Your task to perform on an android device: Is it going to rain today? Image 0: 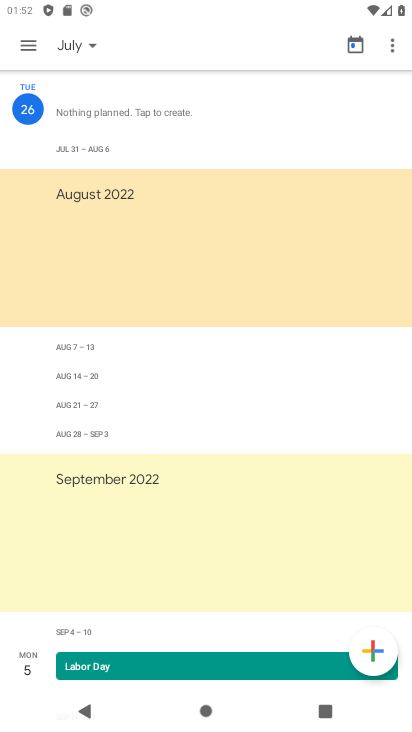
Step 0: press home button
Your task to perform on an android device: Is it going to rain today? Image 1: 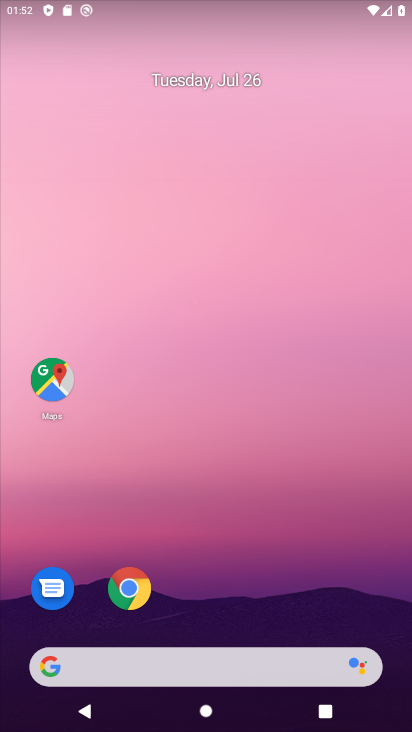
Step 1: click (127, 595)
Your task to perform on an android device: Is it going to rain today? Image 2: 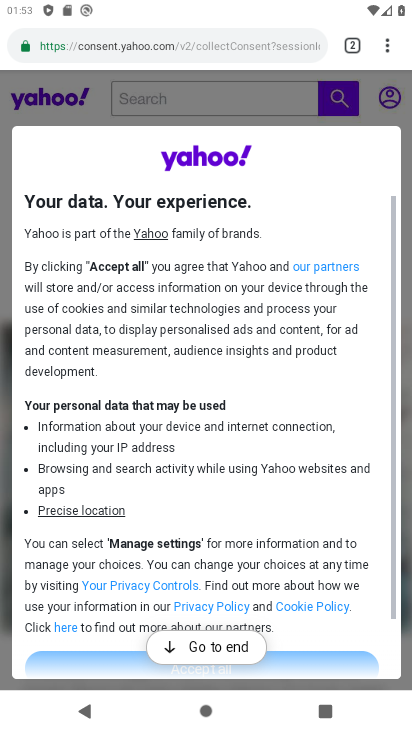
Step 2: click (149, 50)
Your task to perform on an android device: Is it going to rain today? Image 3: 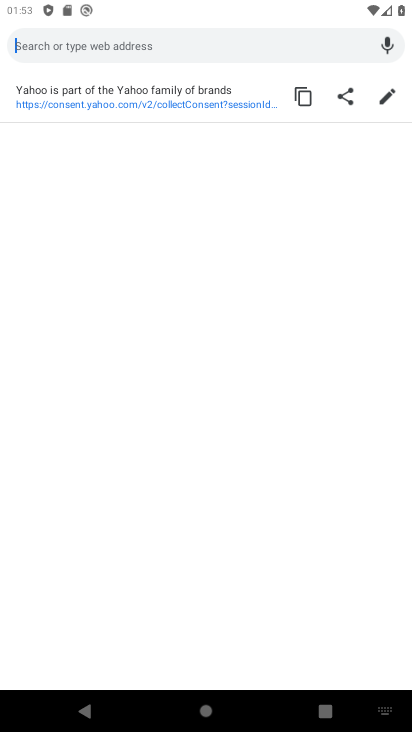
Step 3: type "Is it going to rain today?"
Your task to perform on an android device: Is it going to rain today? Image 4: 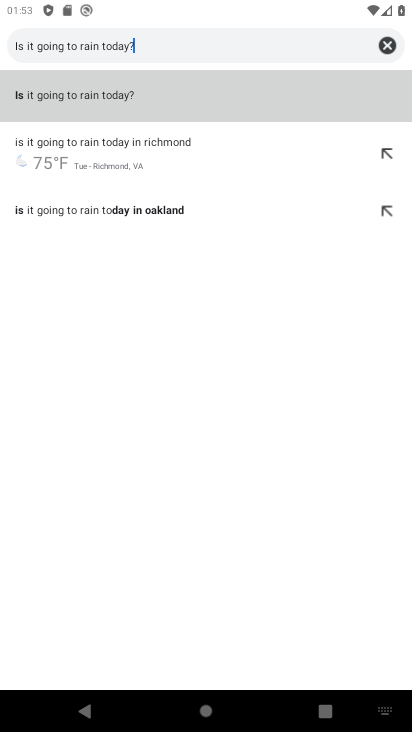
Step 4: click (105, 95)
Your task to perform on an android device: Is it going to rain today? Image 5: 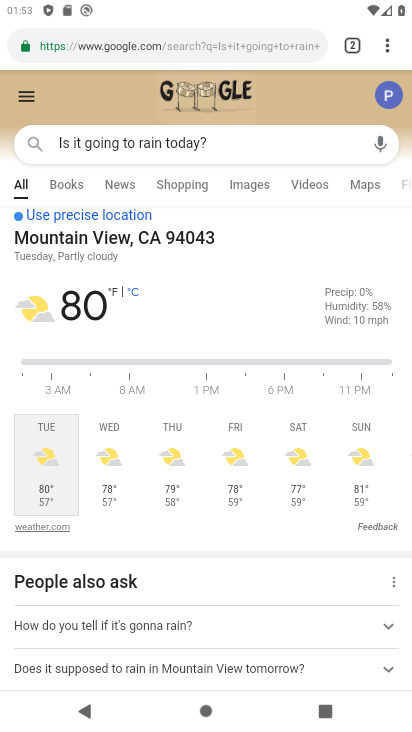
Step 5: task complete